Your task to perform on an android device: Open the calendar and show me this week's events Image 0: 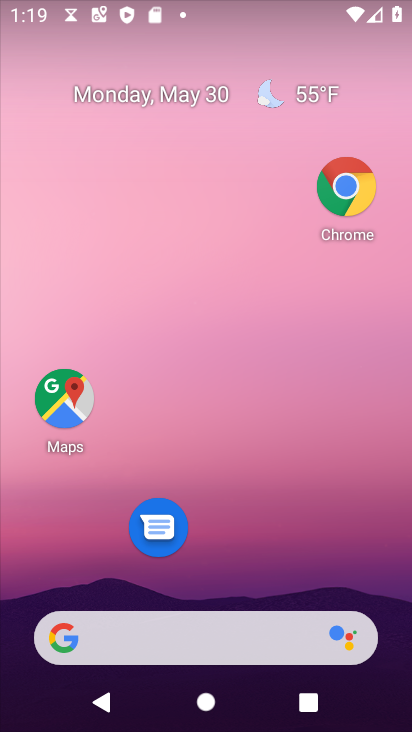
Step 0: drag from (207, 578) to (221, 0)
Your task to perform on an android device: Open the calendar and show me this week's events Image 1: 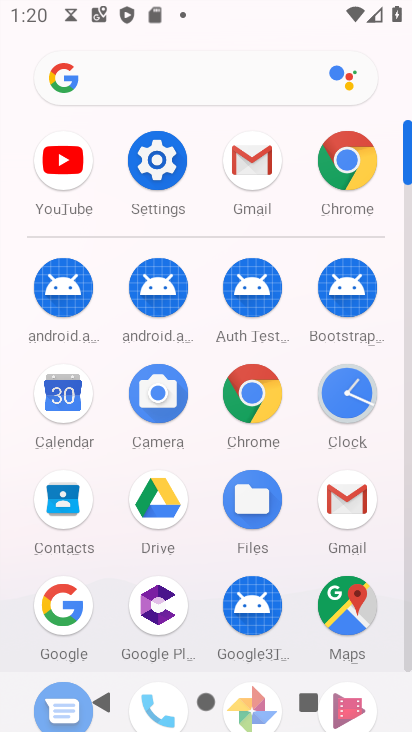
Step 1: click (64, 390)
Your task to perform on an android device: Open the calendar and show me this week's events Image 2: 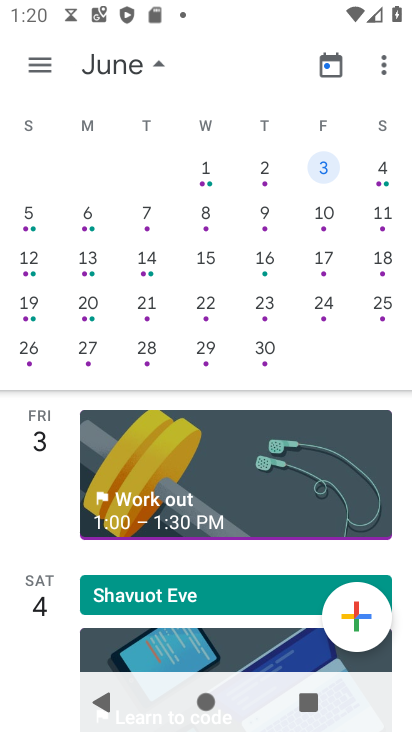
Step 2: click (268, 167)
Your task to perform on an android device: Open the calendar and show me this week's events Image 3: 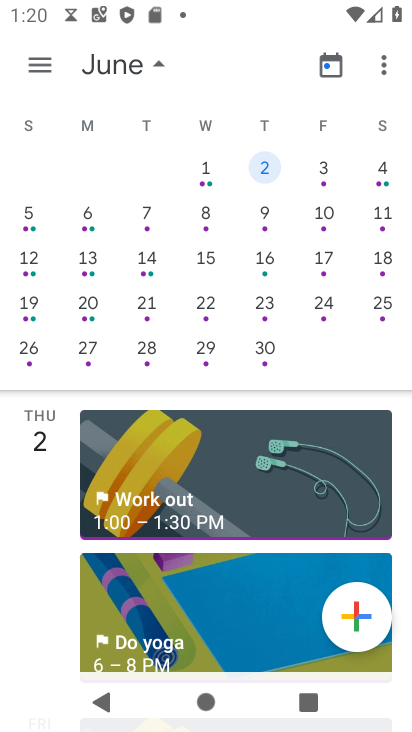
Step 3: drag from (186, 357) to (190, 78)
Your task to perform on an android device: Open the calendar and show me this week's events Image 4: 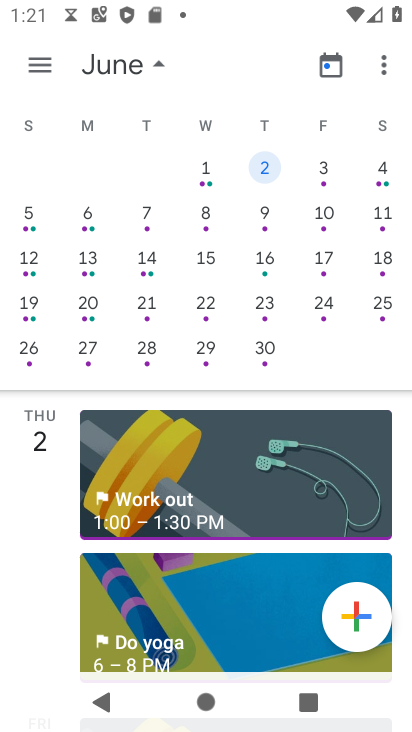
Step 4: drag from (167, 357) to (179, 168)
Your task to perform on an android device: Open the calendar and show me this week's events Image 5: 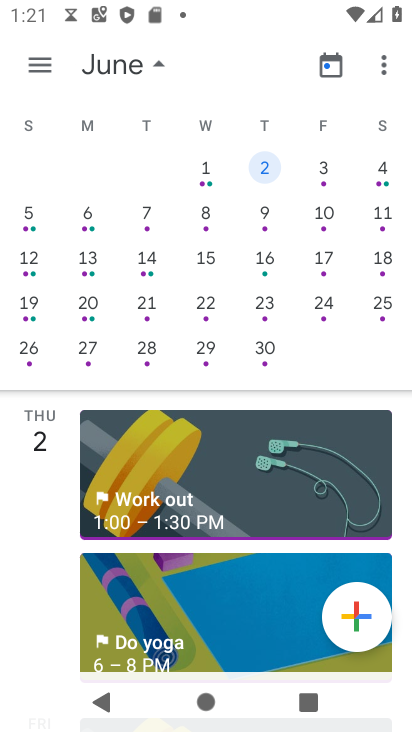
Step 5: drag from (238, 367) to (264, 101)
Your task to perform on an android device: Open the calendar and show me this week's events Image 6: 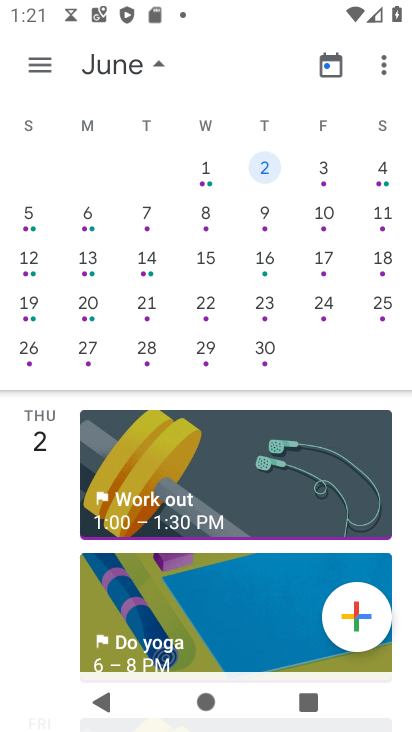
Step 6: click (326, 181)
Your task to perform on an android device: Open the calendar and show me this week's events Image 7: 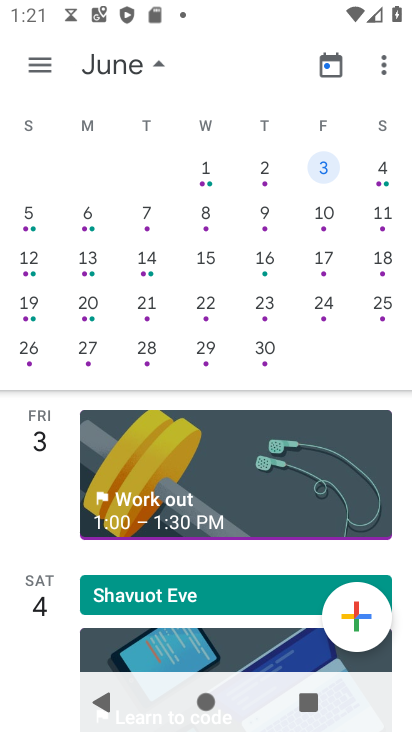
Step 7: task complete